Your task to perform on an android device: Go to ESPN.com Image 0: 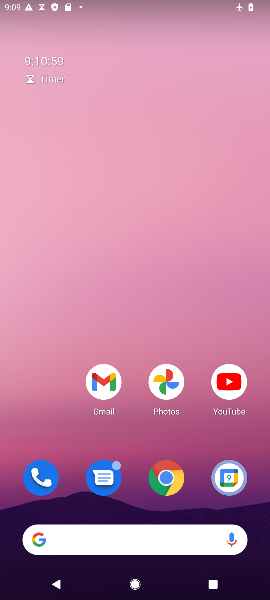
Step 0: click (182, 493)
Your task to perform on an android device: Go to ESPN.com Image 1: 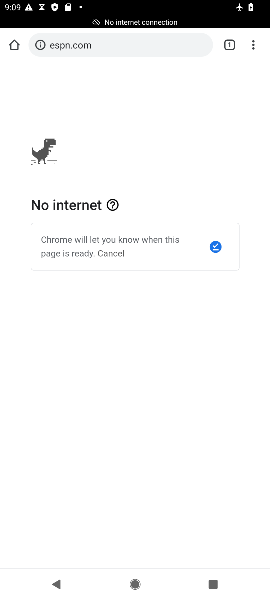
Step 1: task complete